Your task to perform on an android device: uninstall "Adobe Express: Graphic Design" Image 0: 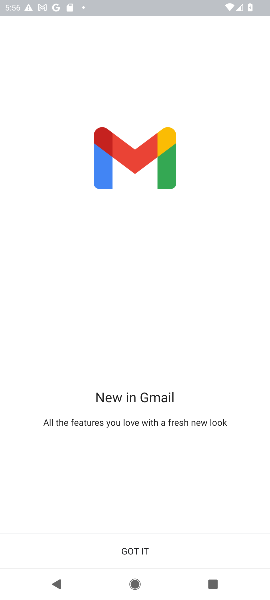
Step 0: press home button
Your task to perform on an android device: uninstall "Adobe Express: Graphic Design" Image 1: 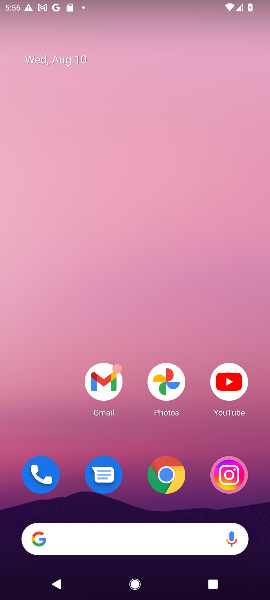
Step 1: drag from (138, 532) to (150, 233)
Your task to perform on an android device: uninstall "Adobe Express: Graphic Design" Image 2: 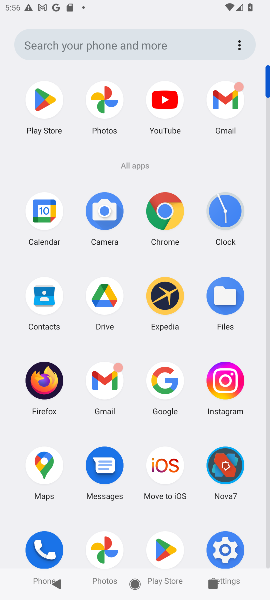
Step 2: click (38, 100)
Your task to perform on an android device: uninstall "Adobe Express: Graphic Design" Image 3: 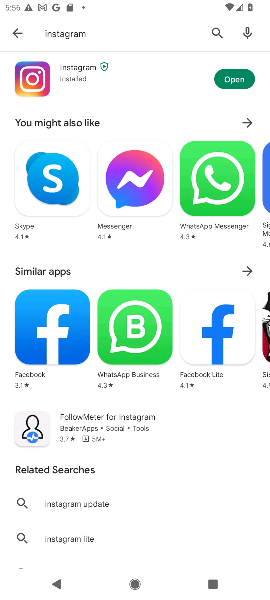
Step 3: click (221, 35)
Your task to perform on an android device: uninstall "Adobe Express: Graphic Design" Image 4: 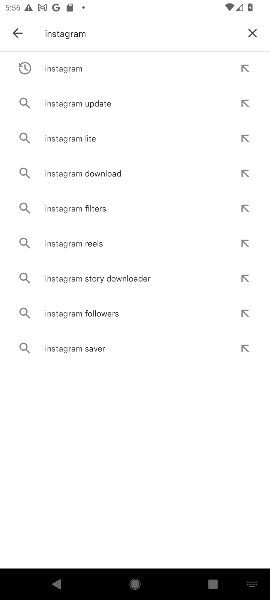
Step 4: click (253, 30)
Your task to perform on an android device: uninstall "Adobe Express: Graphic Design" Image 5: 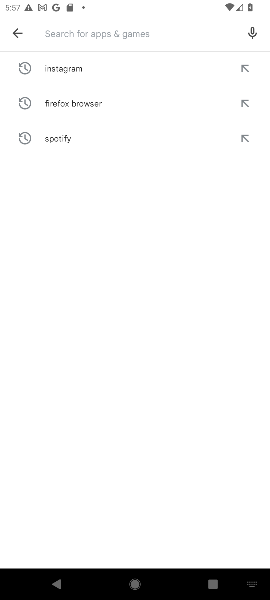
Step 5: type "Adobe Express: Graphic Design"
Your task to perform on an android device: uninstall "Adobe Express: Graphic Design" Image 6: 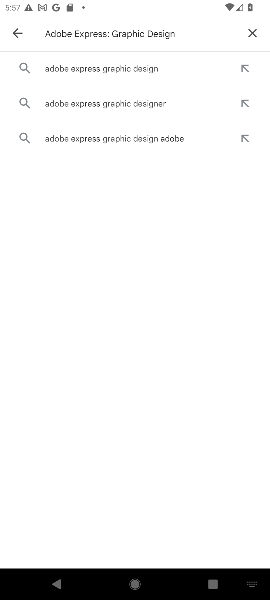
Step 6: click (65, 73)
Your task to perform on an android device: uninstall "Adobe Express: Graphic Design" Image 7: 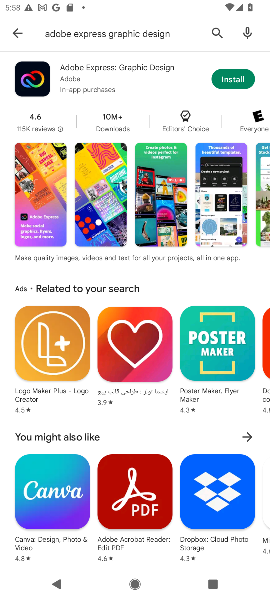
Step 7: click (233, 76)
Your task to perform on an android device: uninstall "Adobe Express: Graphic Design" Image 8: 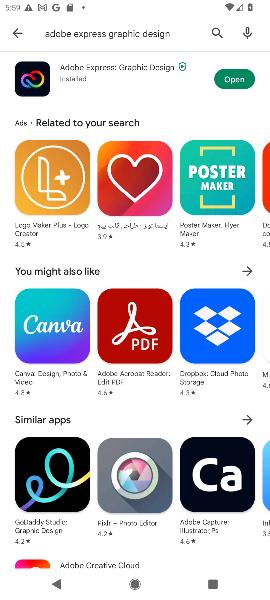
Step 8: click (236, 75)
Your task to perform on an android device: uninstall "Adobe Express: Graphic Design" Image 9: 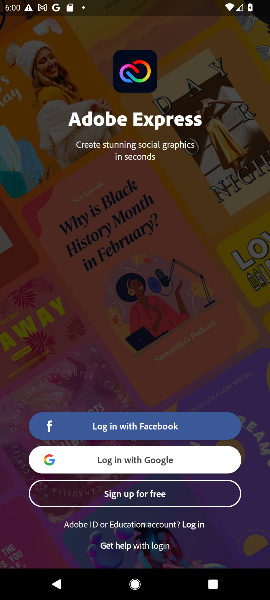
Step 9: task complete